Your task to perform on an android device: see tabs open on other devices in the chrome app Image 0: 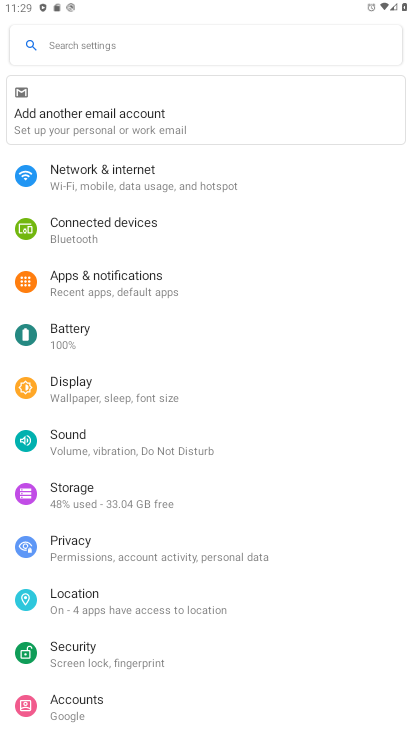
Step 0: press home button
Your task to perform on an android device: see tabs open on other devices in the chrome app Image 1: 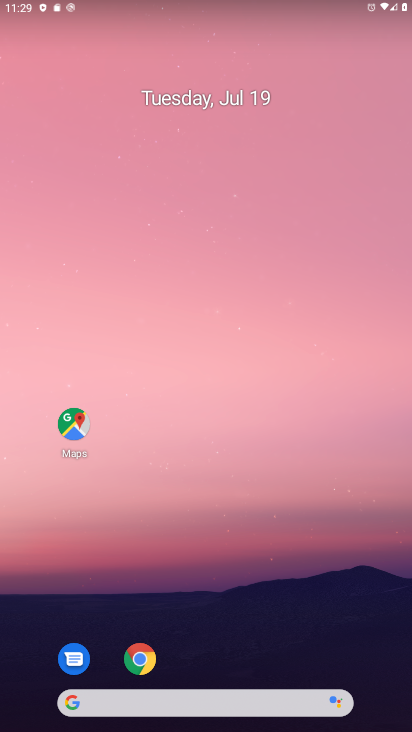
Step 1: click (138, 653)
Your task to perform on an android device: see tabs open on other devices in the chrome app Image 2: 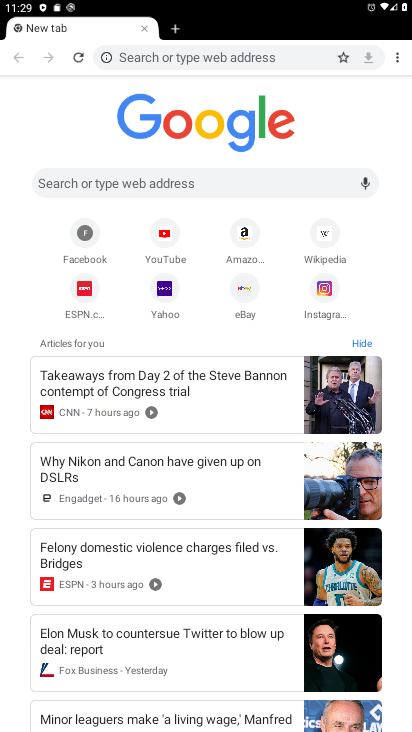
Step 2: click (394, 55)
Your task to perform on an android device: see tabs open on other devices in the chrome app Image 3: 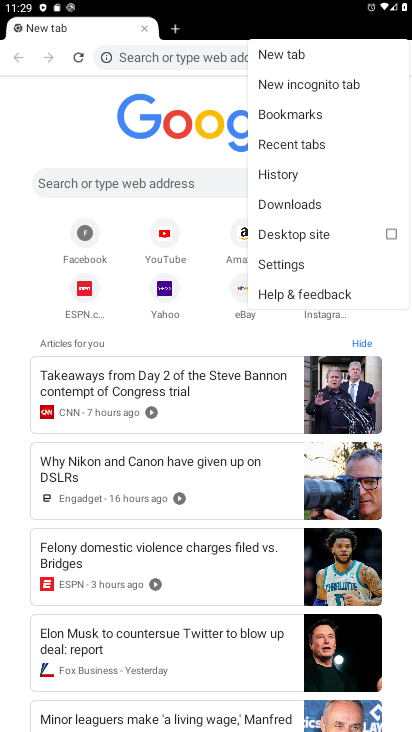
Step 3: click (337, 143)
Your task to perform on an android device: see tabs open on other devices in the chrome app Image 4: 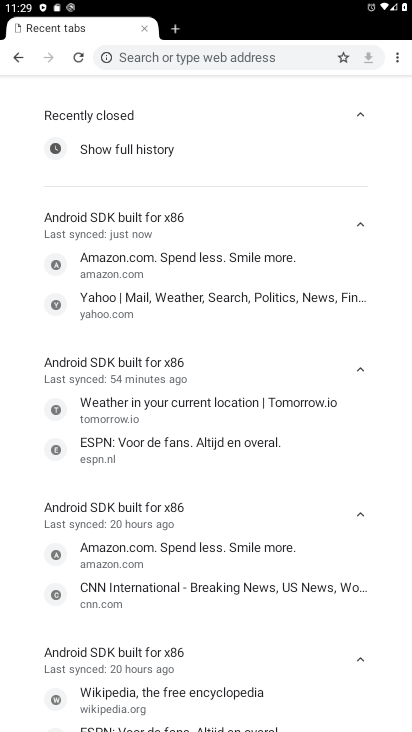
Step 4: task complete